Your task to perform on an android device: delete location history Image 0: 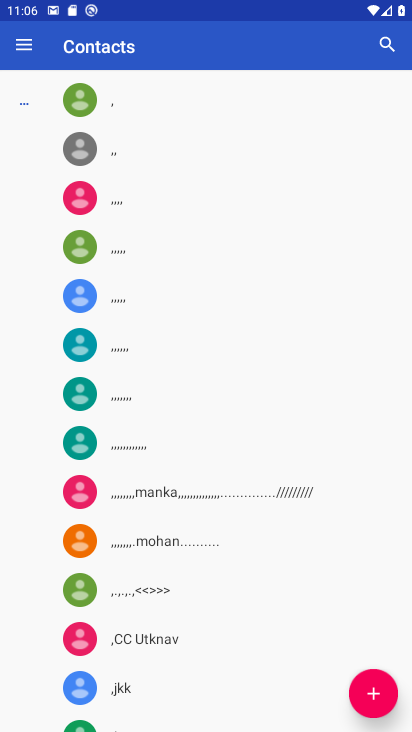
Step 0: press home button
Your task to perform on an android device: delete location history Image 1: 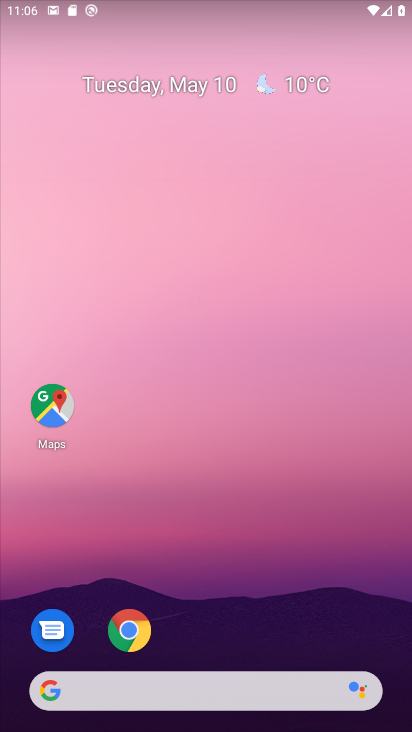
Step 1: drag from (280, 593) to (201, 65)
Your task to perform on an android device: delete location history Image 2: 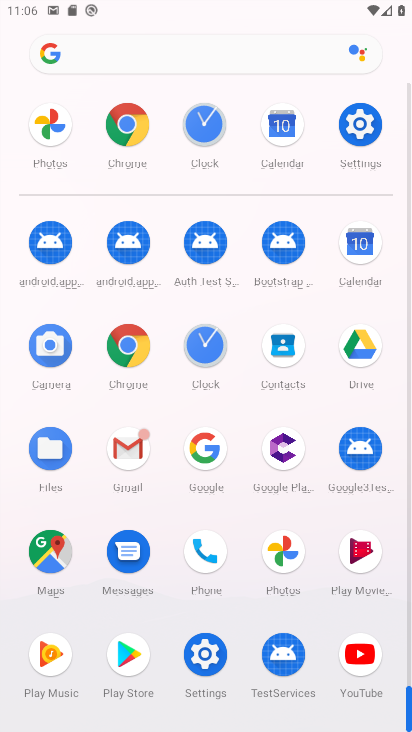
Step 2: click (46, 554)
Your task to perform on an android device: delete location history Image 3: 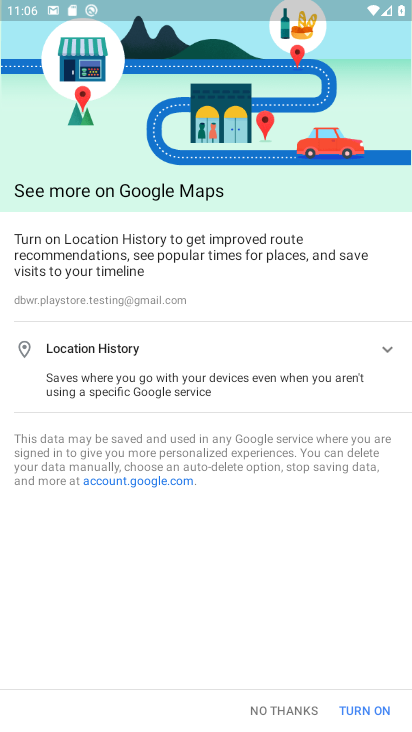
Step 3: click (364, 702)
Your task to perform on an android device: delete location history Image 4: 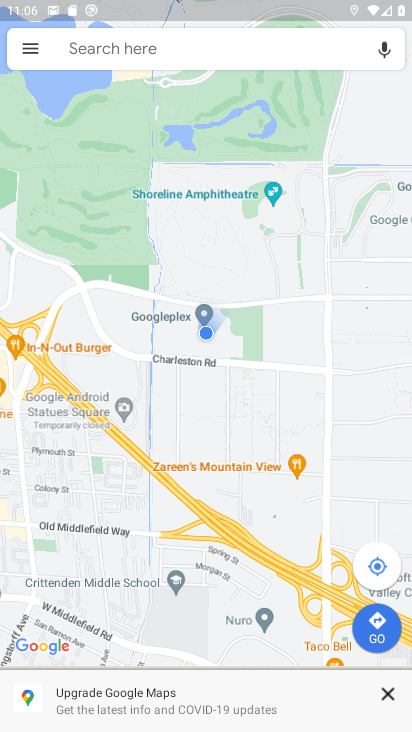
Step 4: click (31, 59)
Your task to perform on an android device: delete location history Image 5: 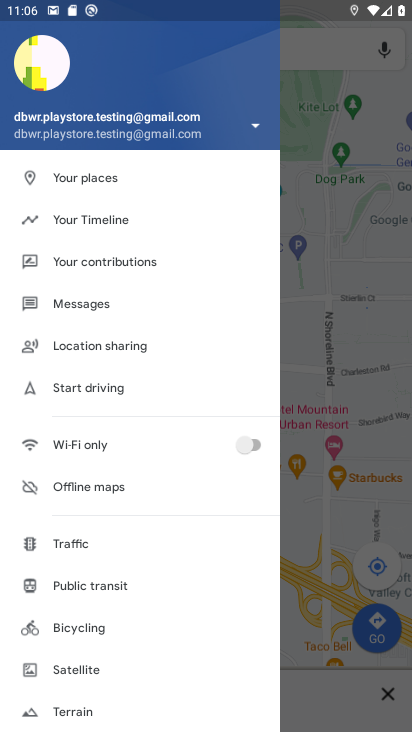
Step 5: click (94, 211)
Your task to perform on an android device: delete location history Image 6: 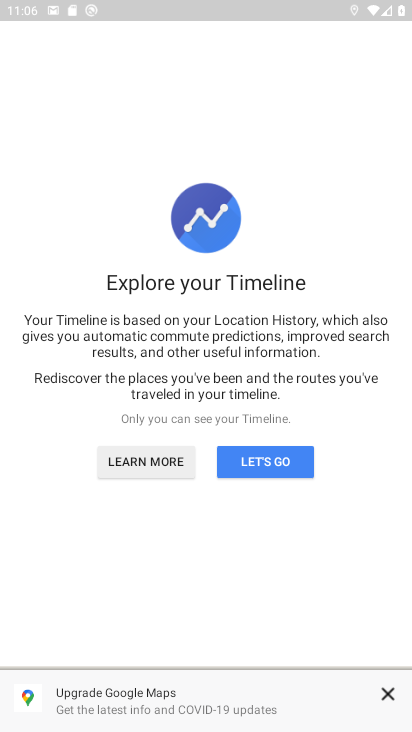
Step 6: click (250, 452)
Your task to perform on an android device: delete location history Image 7: 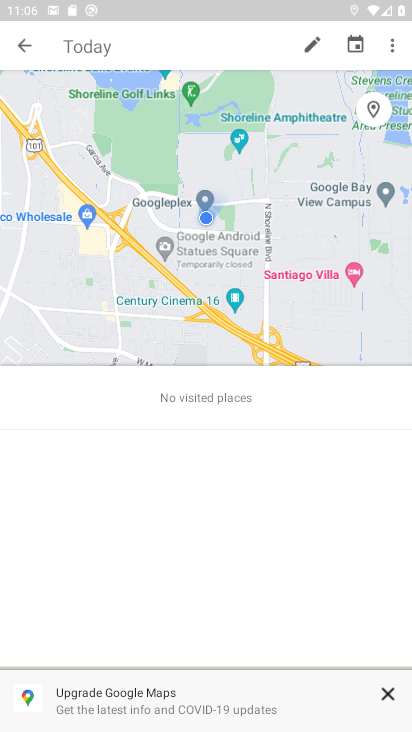
Step 7: click (392, 42)
Your task to perform on an android device: delete location history Image 8: 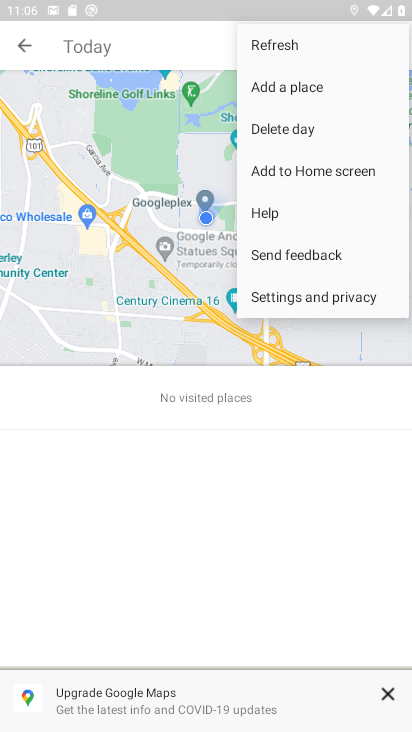
Step 8: click (317, 298)
Your task to perform on an android device: delete location history Image 9: 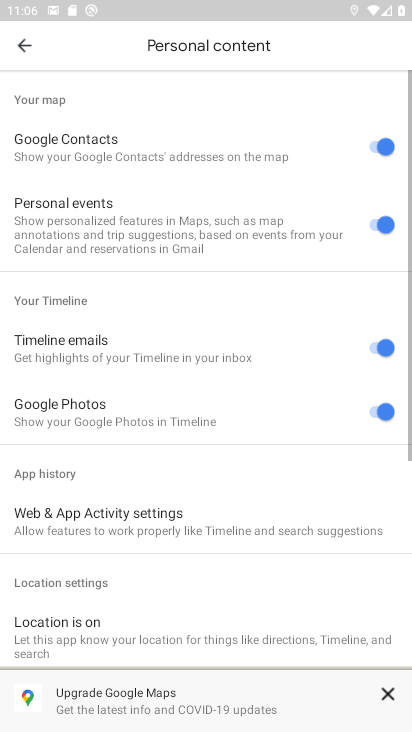
Step 9: drag from (171, 594) to (146, 160)
Your task to perform on an android device: delete location history Image 10: 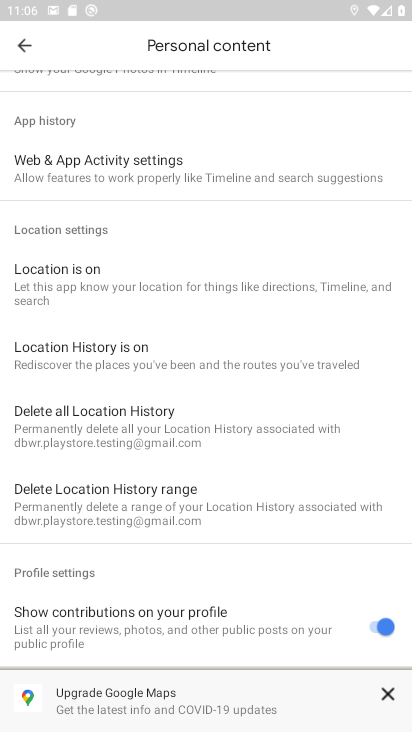
Step 10: click (163, 424)
Your task to perform on an android device: delete location history Image 11: 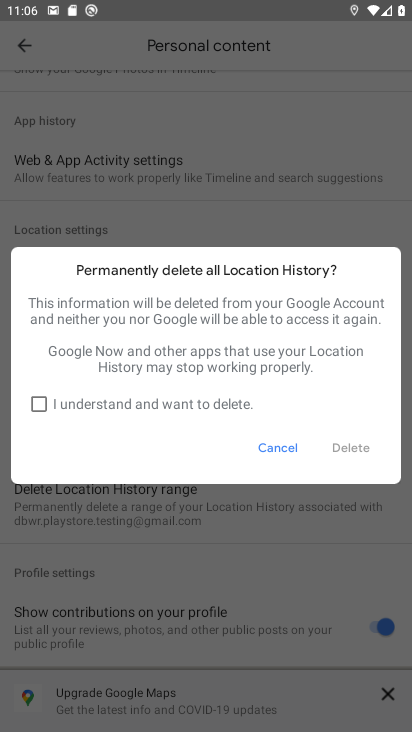
Step 11: click (34, 396)
Your task to perform on an android device: delete location history Image 12: 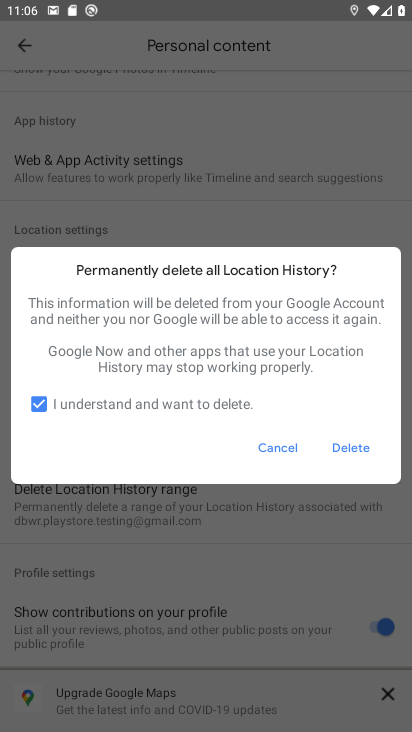
Step 12: click (342, 444)
Your task to perform on an android device: delete location history Image 13: 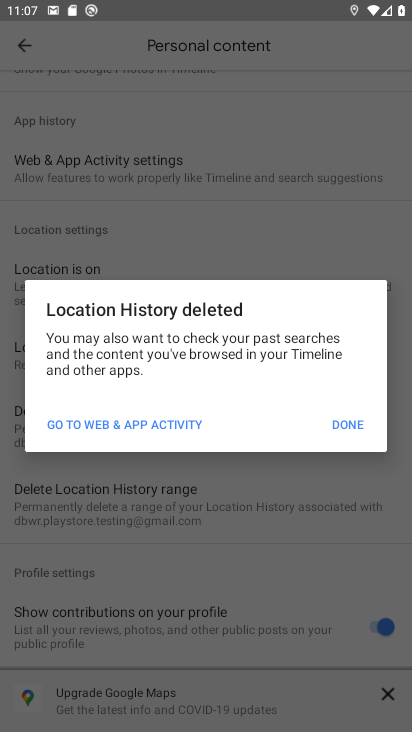
Step 13: click (352, 425)
Your task to perform on an android device: delete location history Image 14: 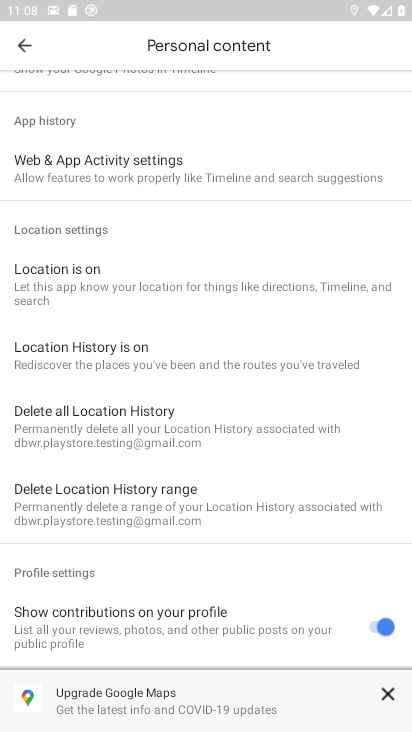
Step 14: click (127, 414)
Your task to perform on an android device: delete location history Image 15: 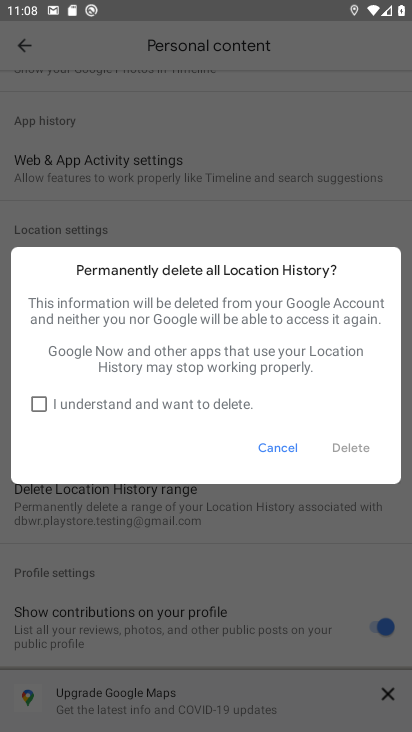
Step 15: click (44, 407)
Your task to perform on an android device: delete location history Image 16: 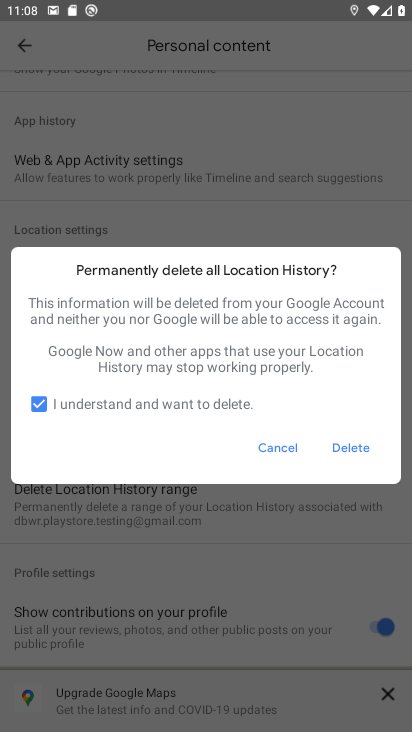
Step 16: click (345, 443)
Your task to perform on an android device: delete location history Image 17: 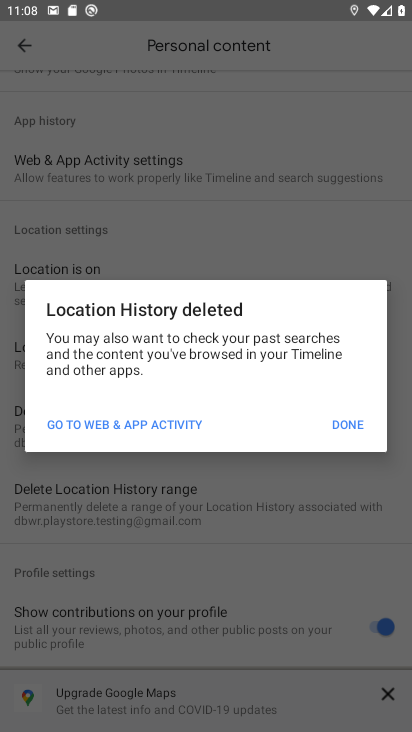
Step 17: click (360, 418)
Your task to perform on an android device: delete location history Image 18: 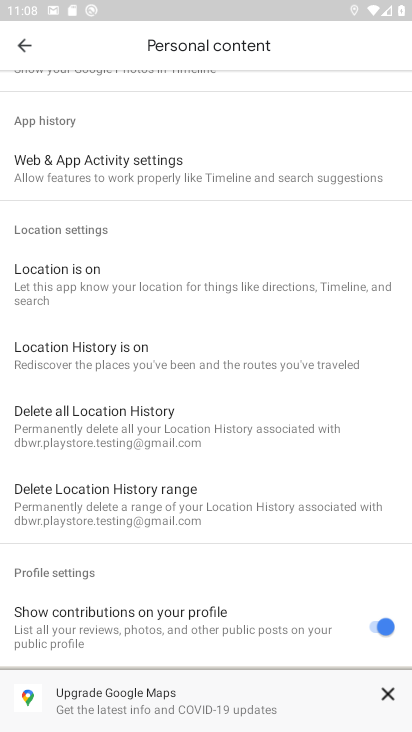
Step 18: task complete